Your task to perform on an android device: add a contact Image 0: 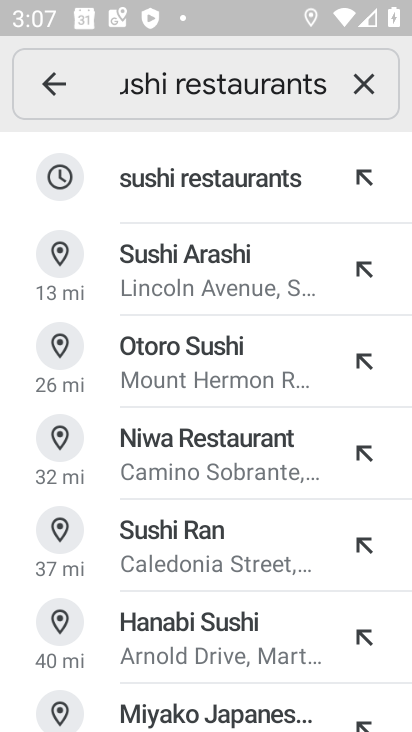
Step 0: press home button
Your task to perform on an android device: add a contact Image 1: 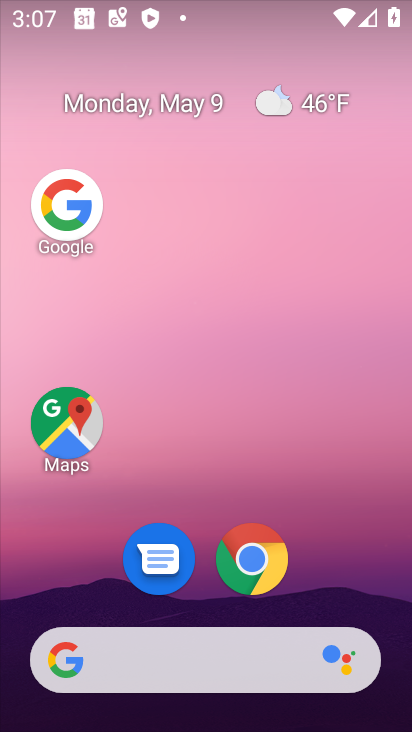
Step 1: drag from (336, 595) to (372, 184)
Your task to perform on an android device: add a contact Image 2: 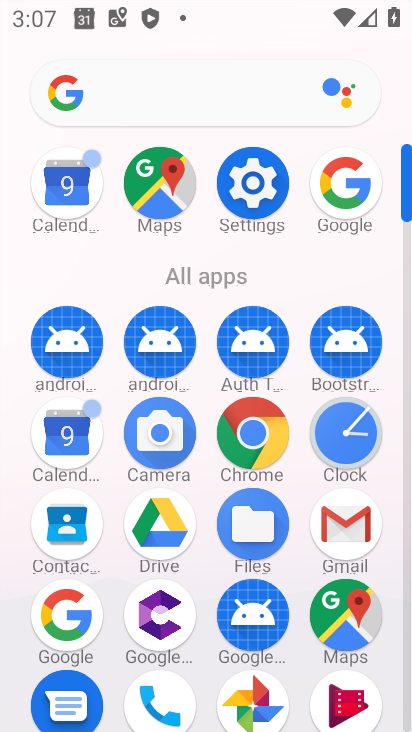
Step 2: drag from (309, 568) to (300, 216)
Your task to perform on an android device: add a contact Image 3: 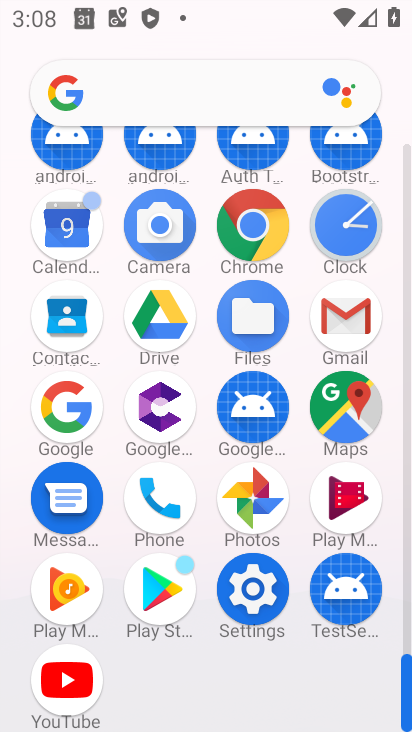
Step 3: click (61, 321)
Your task to perform on an android device: add a contact Image 4: 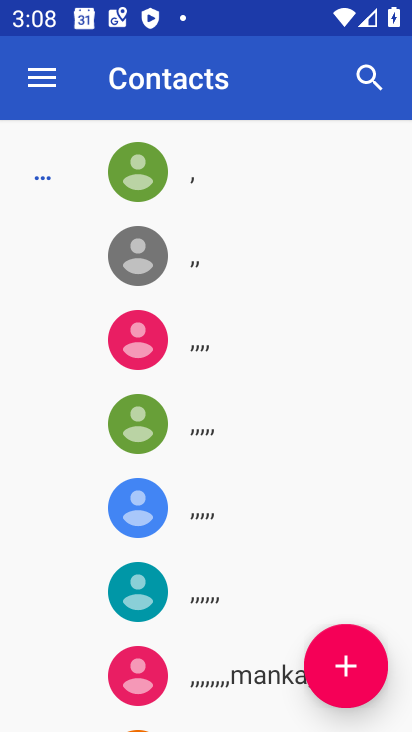
Step 4: click (345, 671)
Your task to perform on an android device: add a contact Image 5: 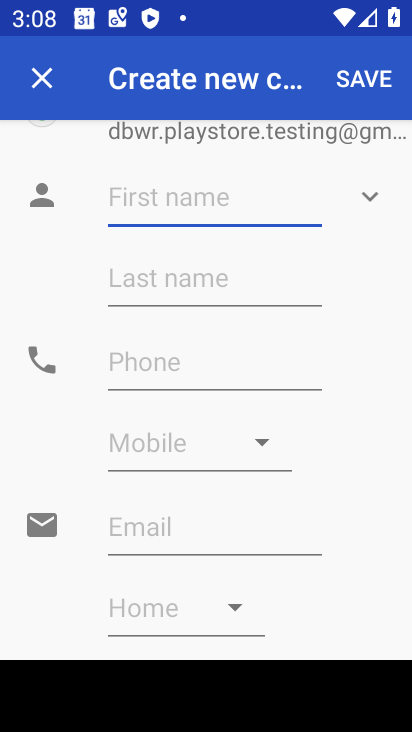
Step 5: click (194, 205)
Your task to perform on an android device: add a contact Image 6: 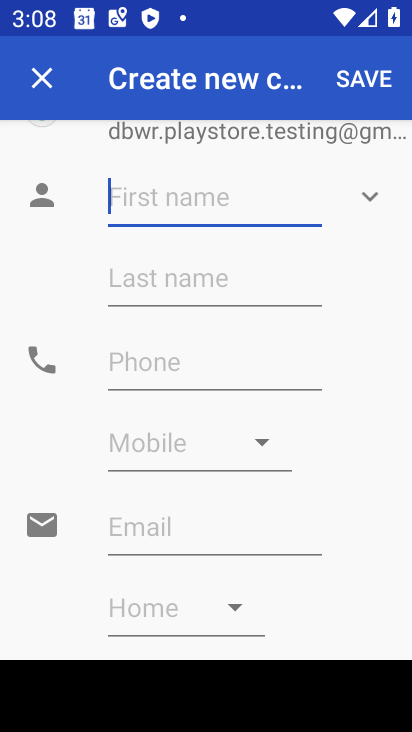
Step 6: type "ttvs"
Your task to perform on an android device: add a contact Image 7: 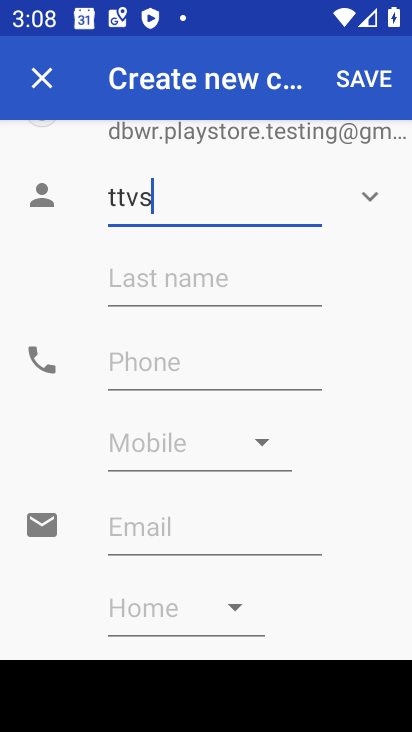
Step 7: click (145, 364)
Your task to perform on an android device: add a contact Image 8: 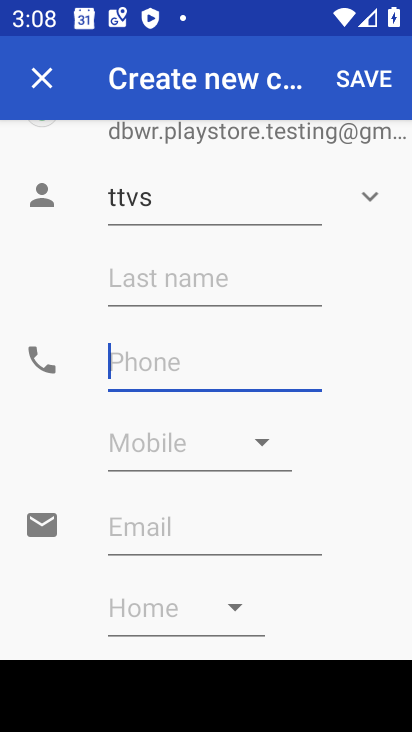
Step 8: type "7786443120"
Your task to perform on an android device: add a contact Image 9: 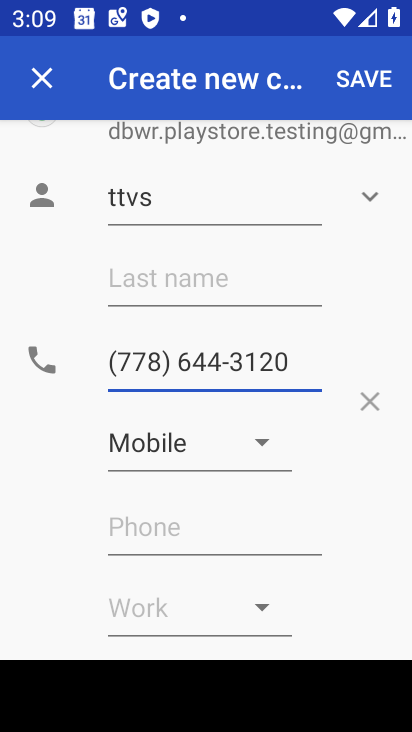
Step 9: click (358, 89)
Your task to perform on an android device: add a contact Image 10: 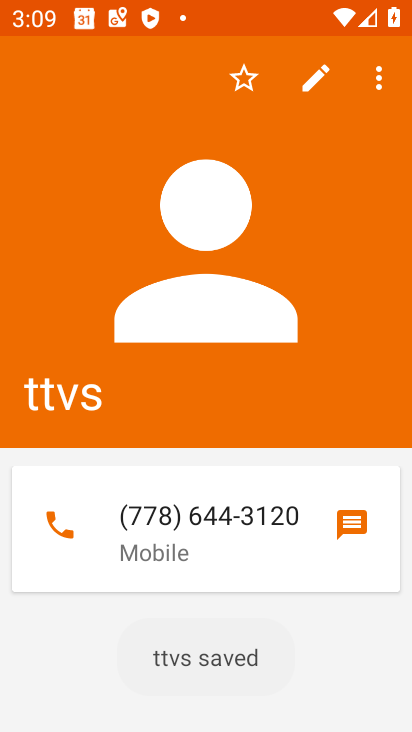
Step 10: task complete